Your task to perform on an android device: change timer sound Image 0: 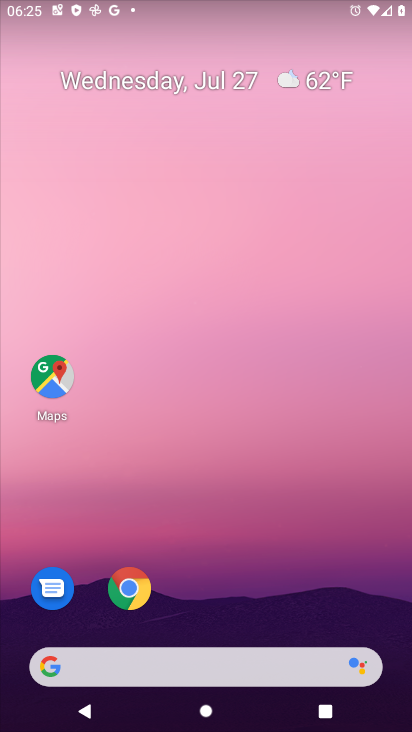
Step 0: drag from (200, 598) to (201, 224)
Your task to perform on an android device: change timer sound Image 1: 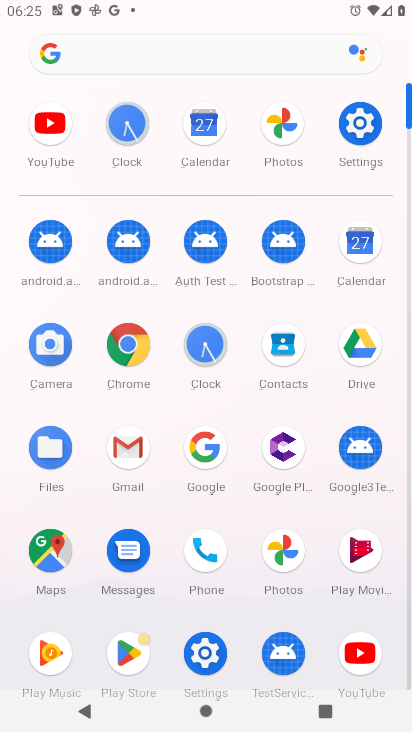
Step 1: click (209, 331)
Your task to perform on an android device: change timer sound Image 2: 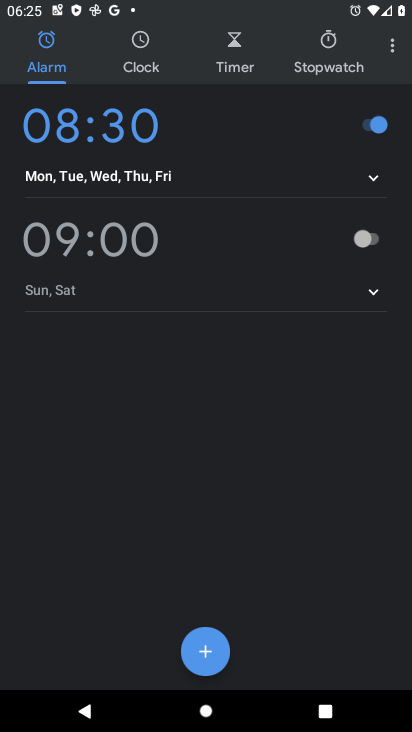
Step 2: click (394, 43)
Your task to perform on an android device: change timer sound Image 3: 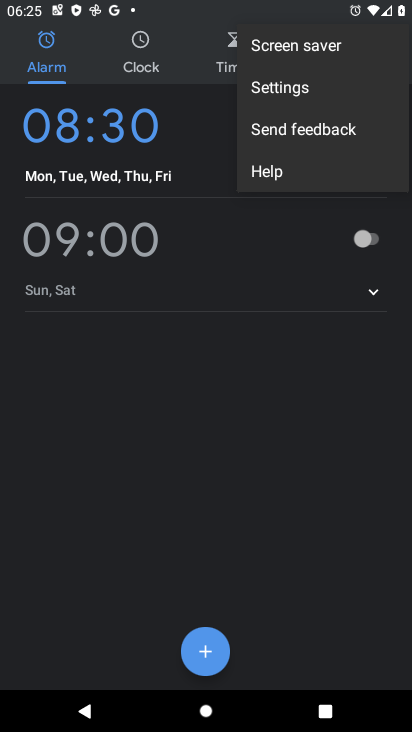
Step 3: click (308, 79)
Your task to perform on an android device: change timer sound Image 4: 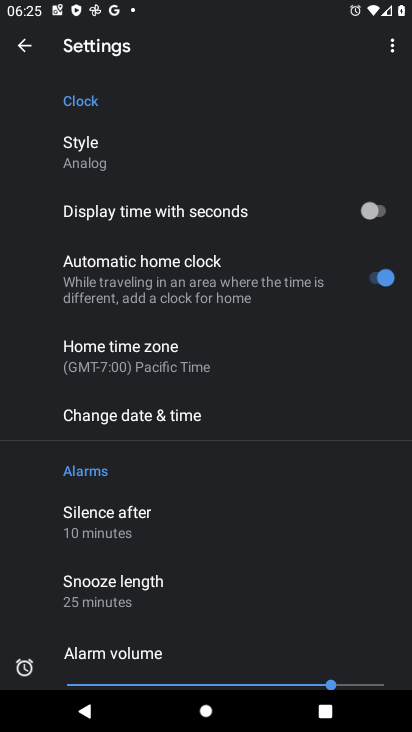
Step 4: drag from (132, 542) to (137, 261)
Your task to perform on an android device: change timer sound Image 5: 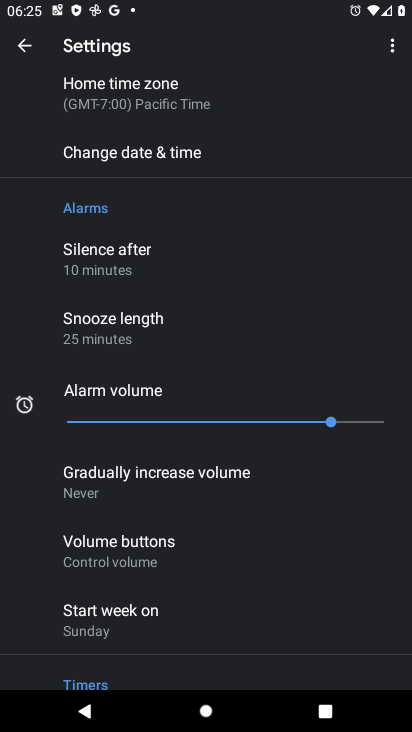
Step 5: click (130, 382)
Your task to perform on an android device: change timer sound Image 6: 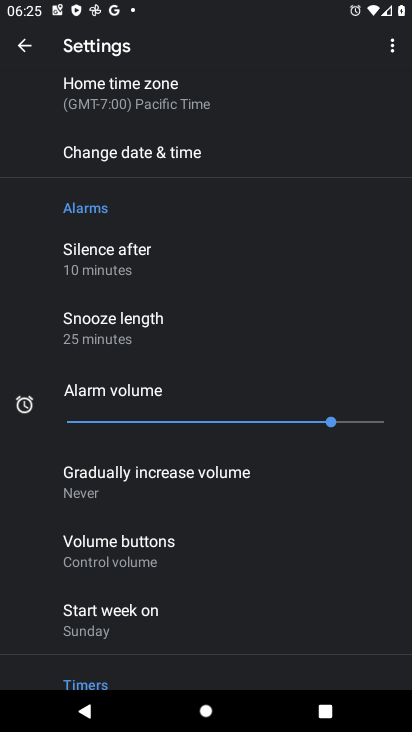
Step 6: drag from (164, 651) to (164, 407)
Your task to perform on an android device: change timer sound Image 7: 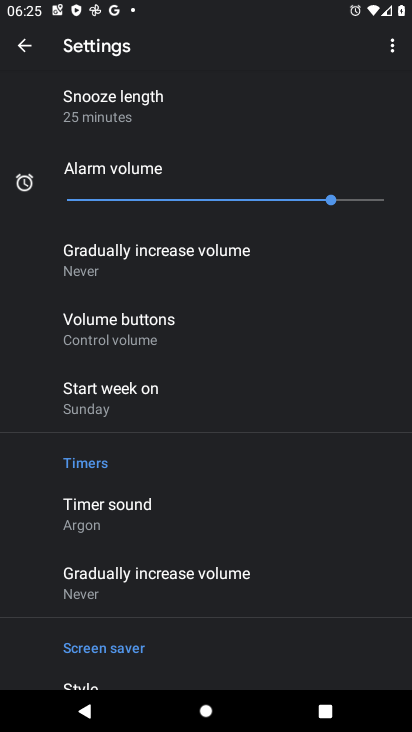
Step 7: click (119, 506)
Your task to perform on an android device: change timer sound Image 8: 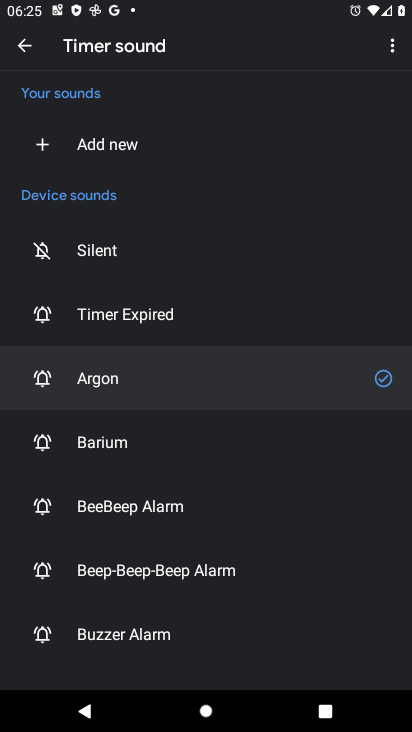
Step 8: click (66, 505)
Your task to perform on an android device: change timer sound Image 9: 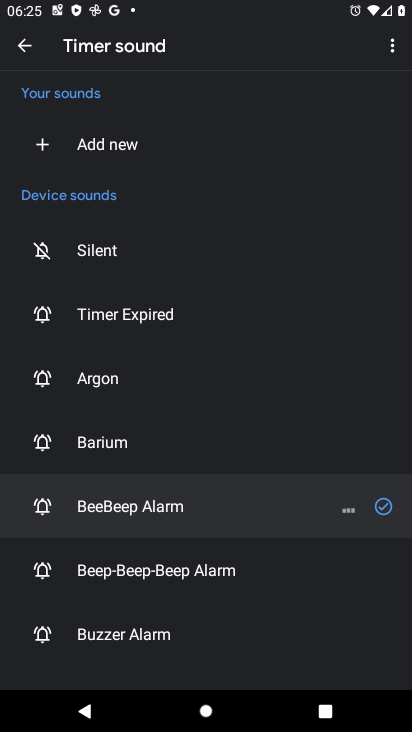
Step 9: task complete